Your task to perform on an android device: turn off notifications in google photos Image 0: 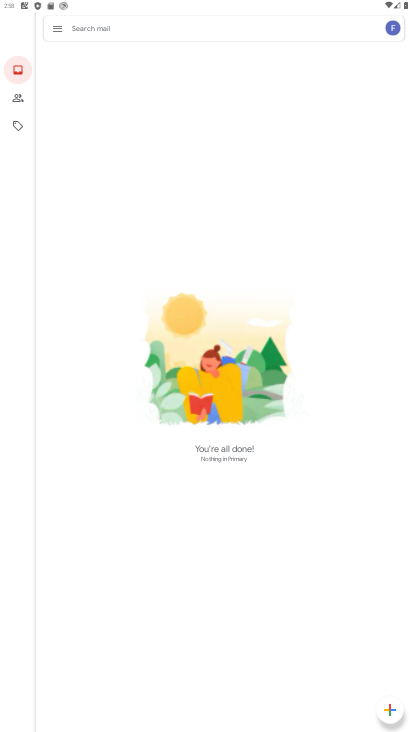
Step 0: press home button
Your task to perform on an android device: turn off notifications in google photos Image 1: 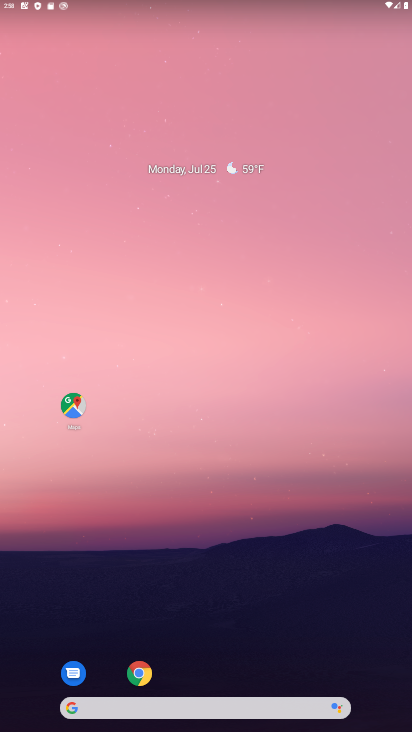
Step 1: drag from (203, 549) to (259, 136)
Your task to perform on an android device: turn off notifications in google photos Image 2: 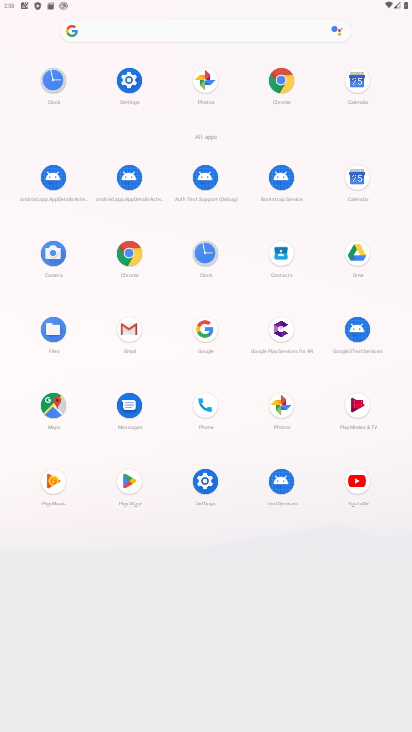
Step 2: click (206, 495)
Your task to perform on an android device: turn off notifications in google photos Image 3: 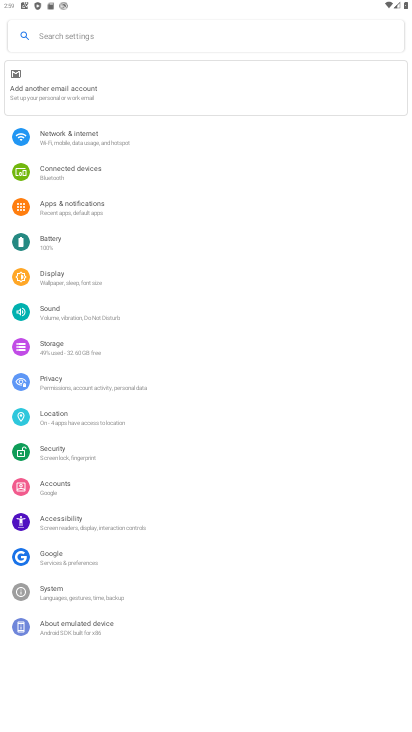
Step 3: press back button
Your task to perform on an android device: turn off notifications in google photos Image 4: 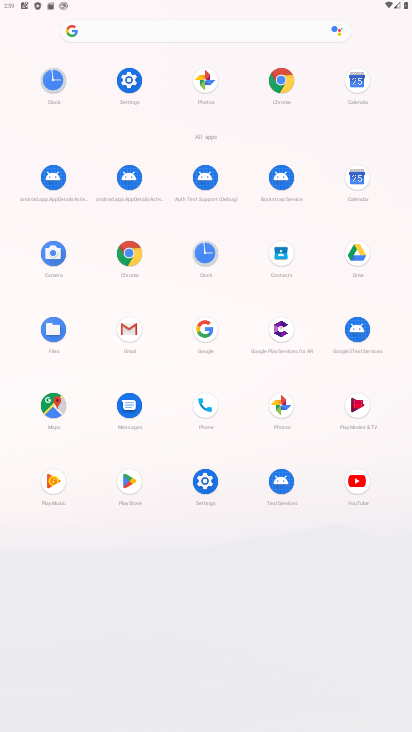
Step 4: click (274, 406)
Your task to perform on an android device: turn off notifications in google photos Image 5: 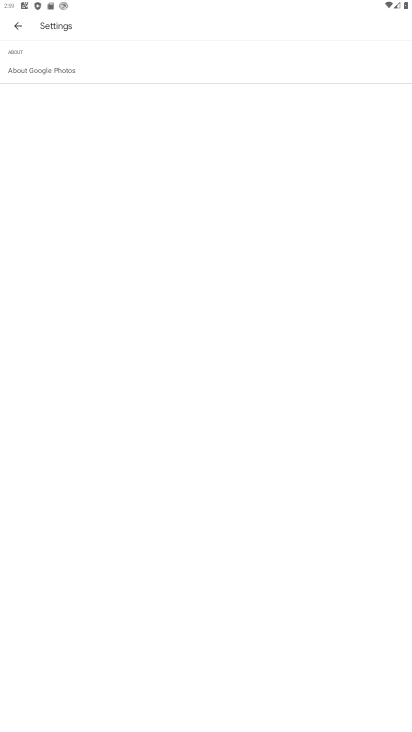
Step 5: click (13, 24)
Your task to perform on an android device: turn off notifications in google photos Image 6: 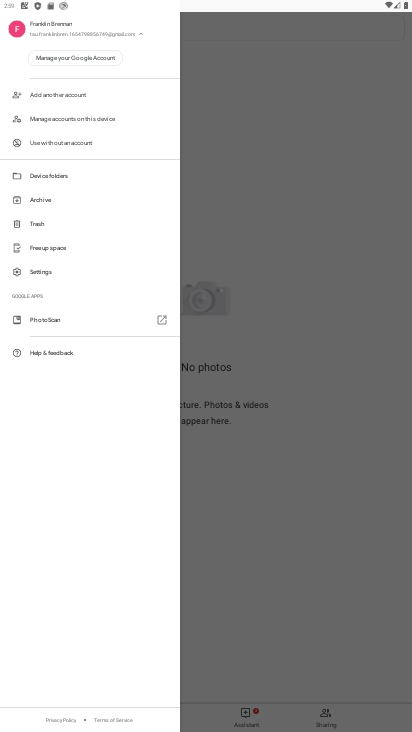
Step 6: click (49, 276)
Your task to perform on an android device: turn off notifications in google photos Image 7: 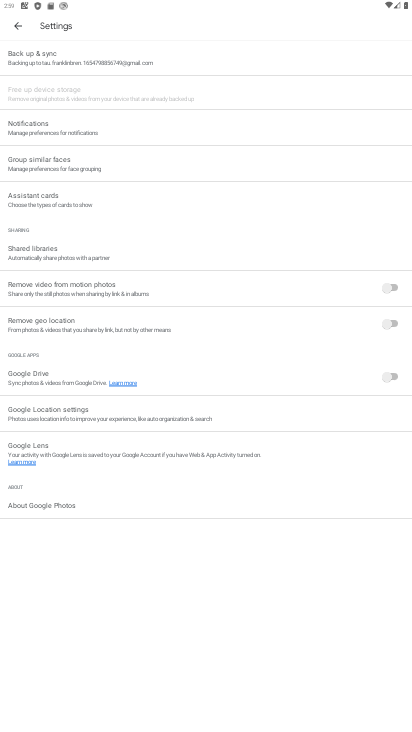
Step 7: click (58, 132)
Your task to perform on an android device: turn off notifications in google photos Image 8: 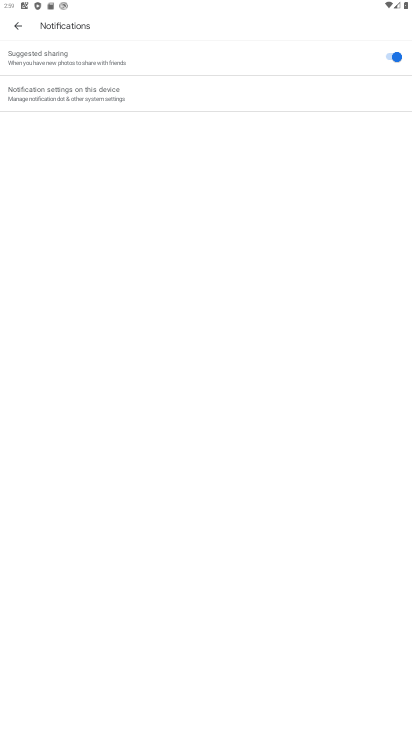
Step 8: click (392, 56)
Your task to perform on an android device: turn off notifications in google photos Image 9: 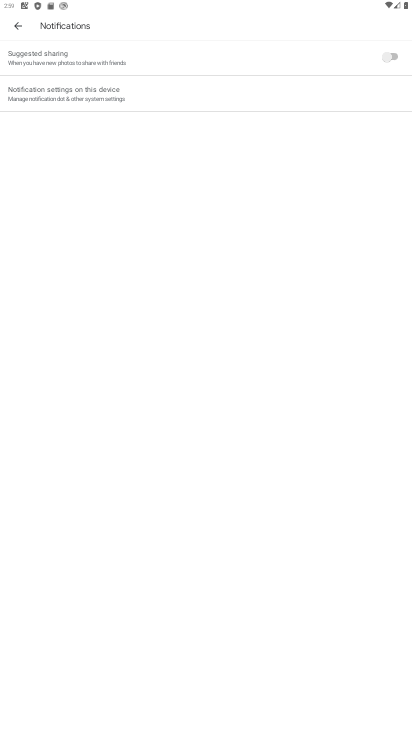
Step 9: click (340, 84)
Your task to perform on an android device: turn off notifications in google photos Image 10: 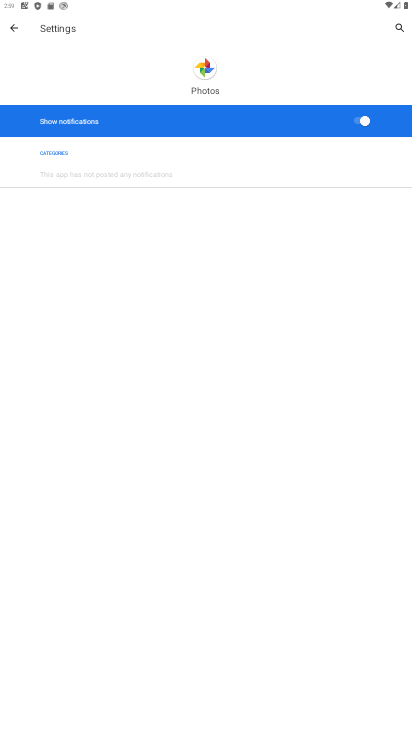
Step 10: click (351, 128)
Your task to perform on an android device: turn off notifications in google photos Image 11: 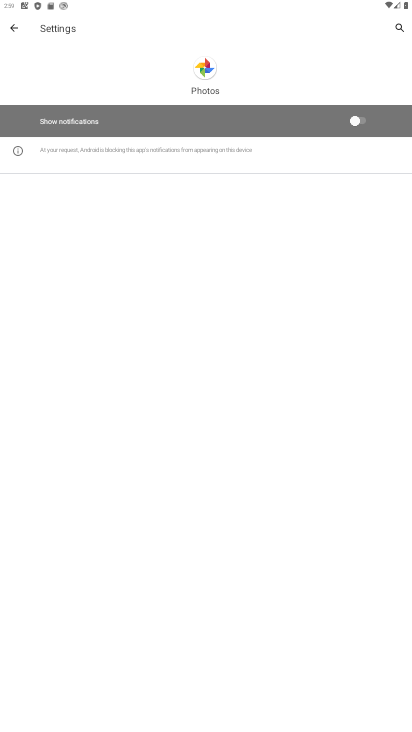
Step 11: task complete